Your task to perform on an android device: Go to Maps Image 0: 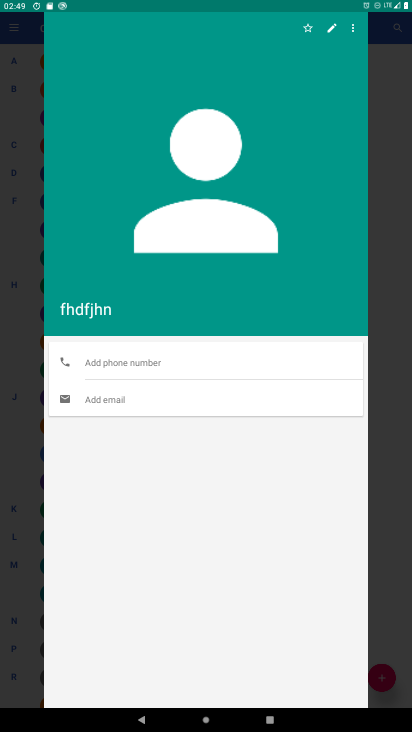
Step 0: press home button
Your task to perform on an android device: Go to Maps Image 1: 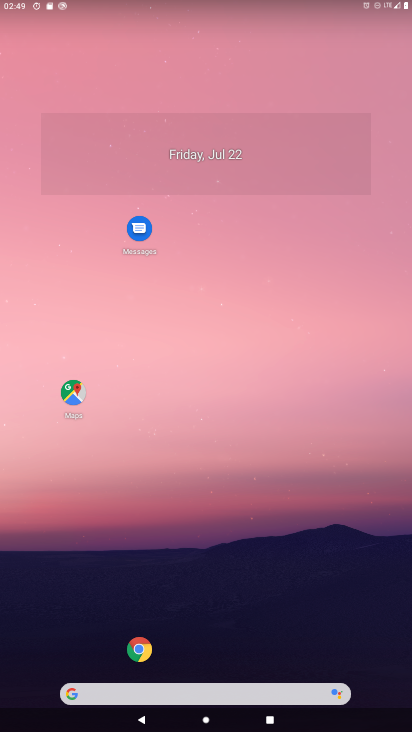
Step 1: click (85, 393)
Your task to perform on an android device: Go to Maps Image 2: 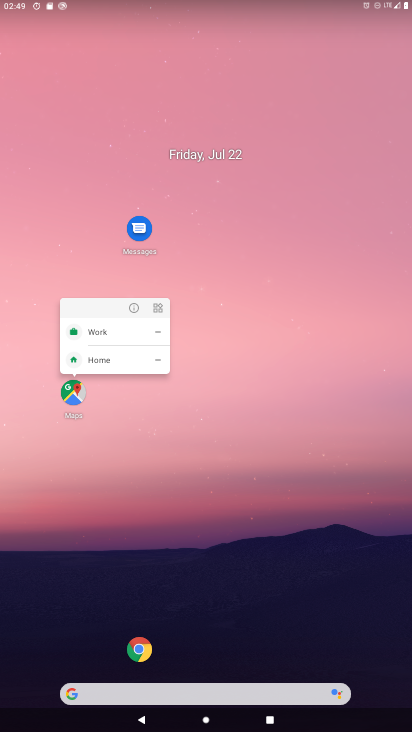
Step 2: click (72, 398)
Your task to perform on an android device: Go to Maps Image 3: 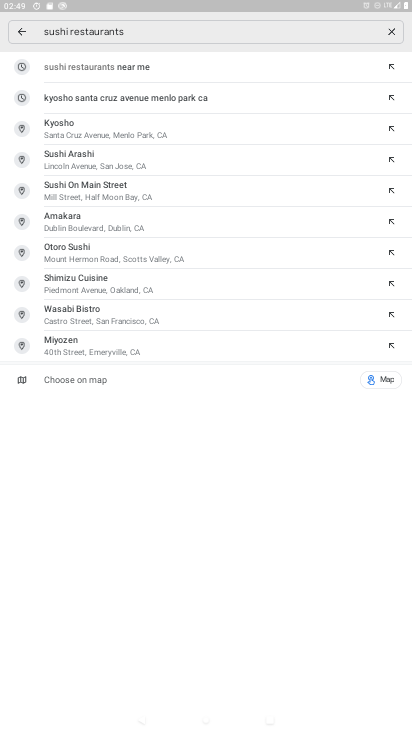
Step 3: click (14, 31)
Your task to perform on an android device: Go to Maps Image 4: 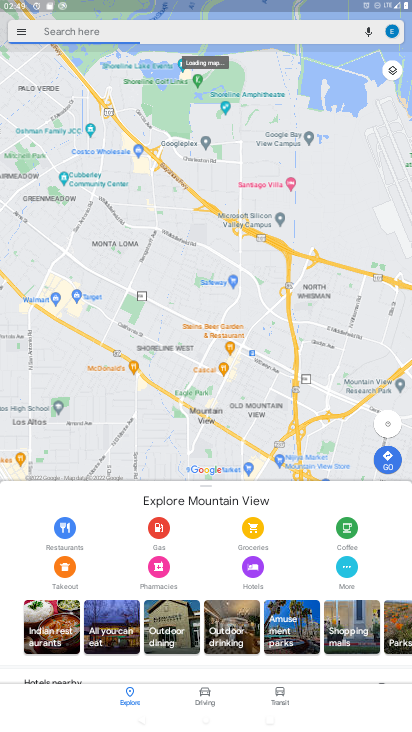
Step 4: task complete